Your task to perform on an android device: Turn on the flashlight Image 0: 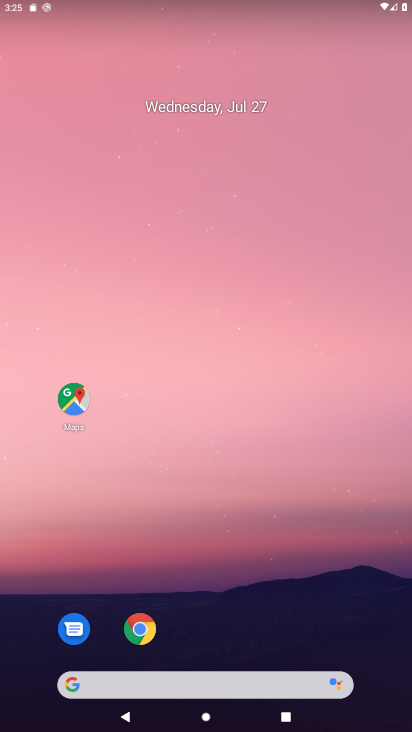
Step 0: press home button
Your task to perform on an android device: Turn on the flashlight Image 1: 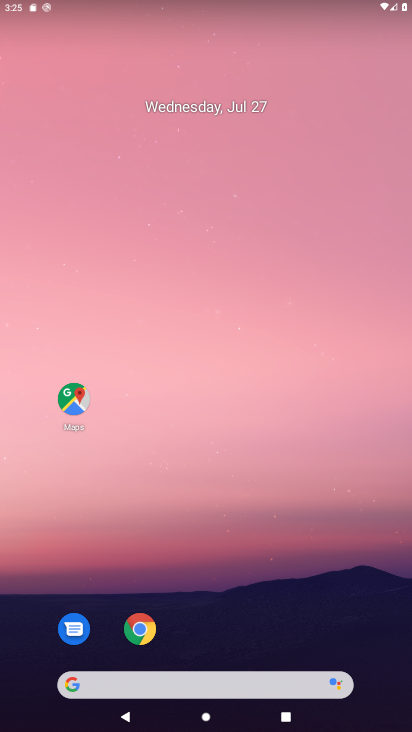
Step 1: task complete